Your task to perform on an android device: toggle translation in the chrome app Image 0: 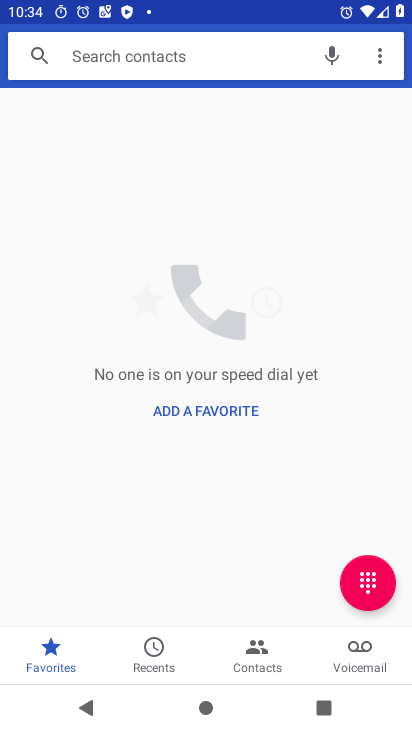
Step 0: press home button
Your task to perform on an android device: toggle translation in the chrome app Image 1: 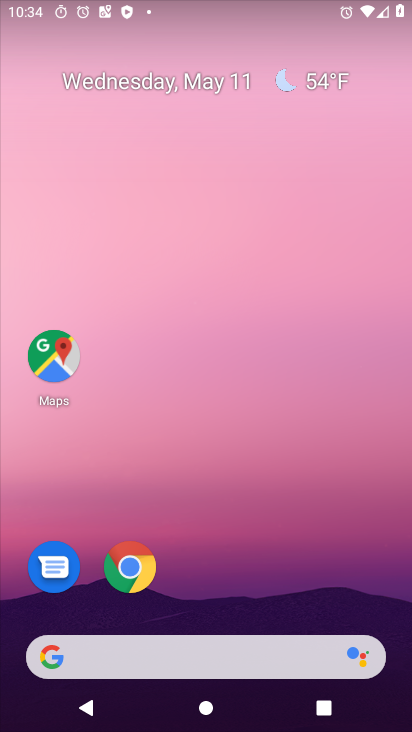
Step 1: click (127, 546)
Your task to perform on an android device: toggle translation in the chrome app Image 2: 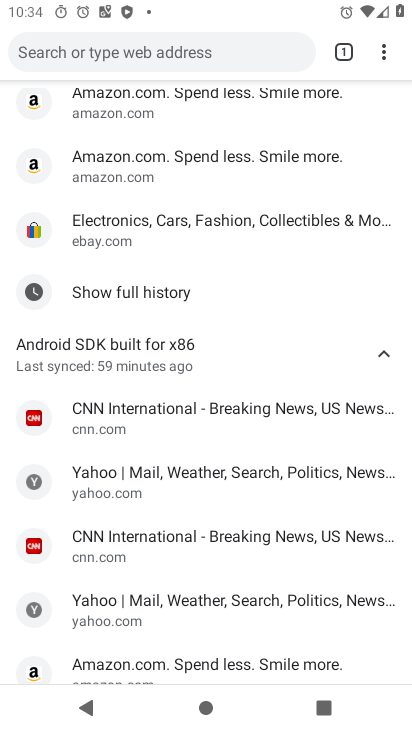
Step 2: click (388, 55)
Your task to perform on an android device: toggle translation in the chrome app Image 3: 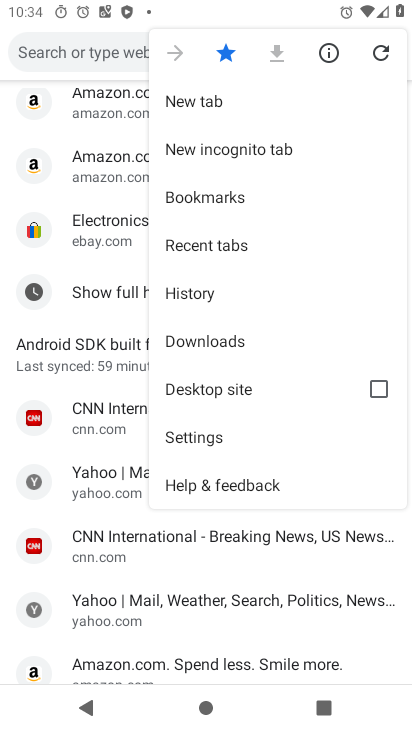
Step 3: click (205, 446)
Your task to perform on an android device: toggle translation in the chrome app Image 4: 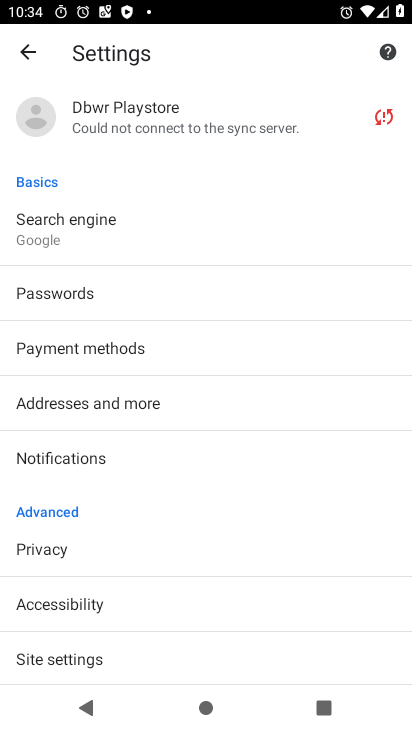
Step 4: drag from (63, 585) to (160, 302)
Your task to perform on an android device: toggle translation in the chrome app Image 5: 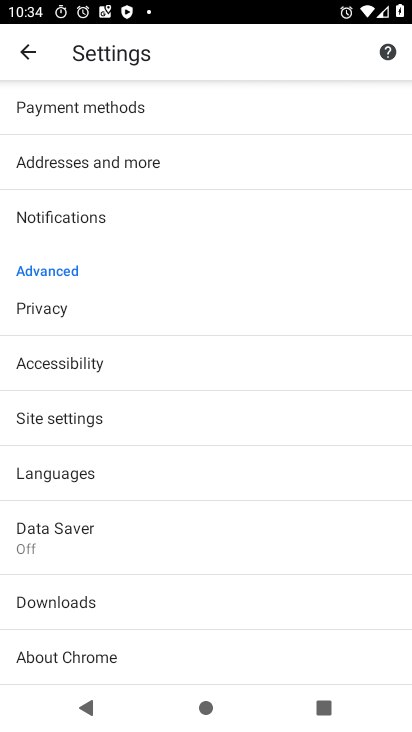
Step 5: click (82, 418)
Your task to perform on an android device: toggle translation in the chrome app Image 6: 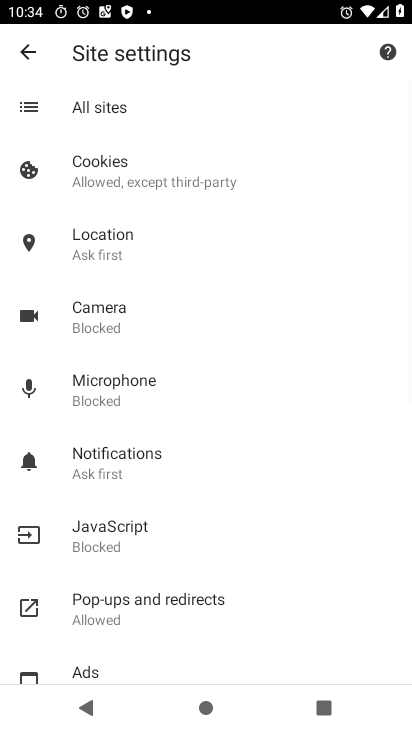
Step 6: click (23, 47)
Your task to perform on an android device: toggle translation in the chrome app Image 7: 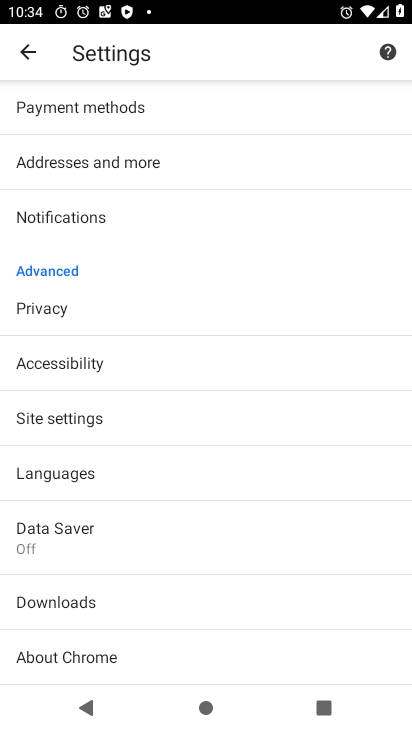
Step 7: click (100, 480)
Your task to perform on an android device: toggle translation in the chrome app Image 8: 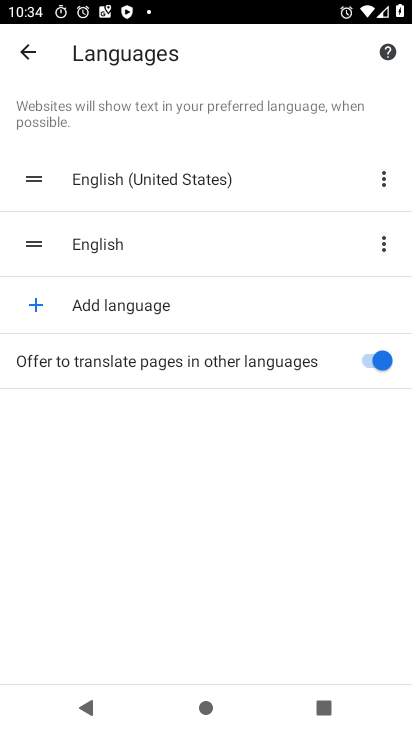
Step 8: click (355, 363)
Your task to perform on an android device: toggle translation in the chrome app Image 9: 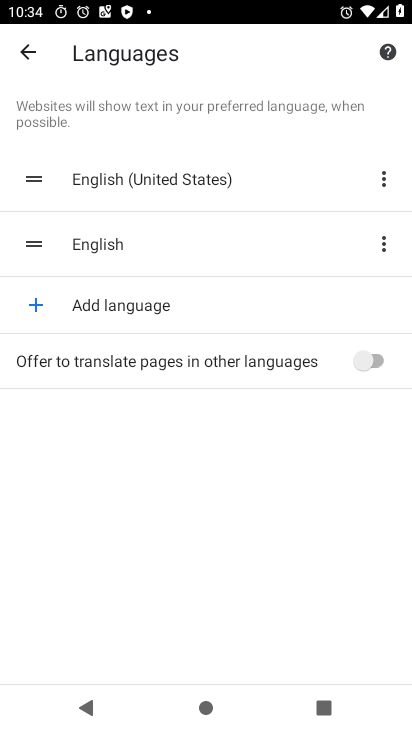
Step 9: task complete